Your task to perform on an android device: Open Google Chrome and open the bookmarks view Image 0: 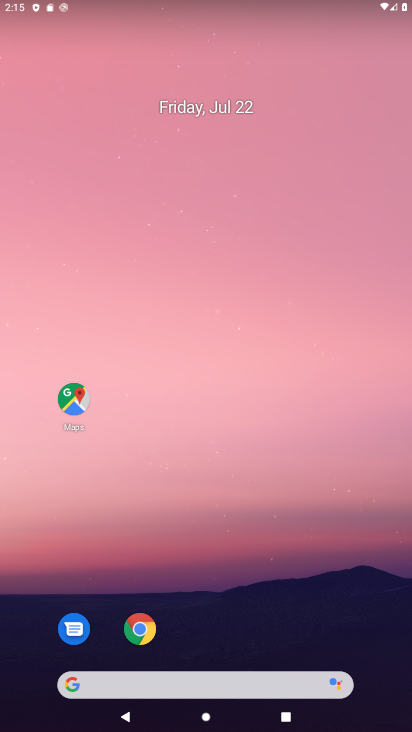
Step 0: click (137, 635)
Your task to perform on an android device: Open Google Chrome and open the bookmarks view Image 1: 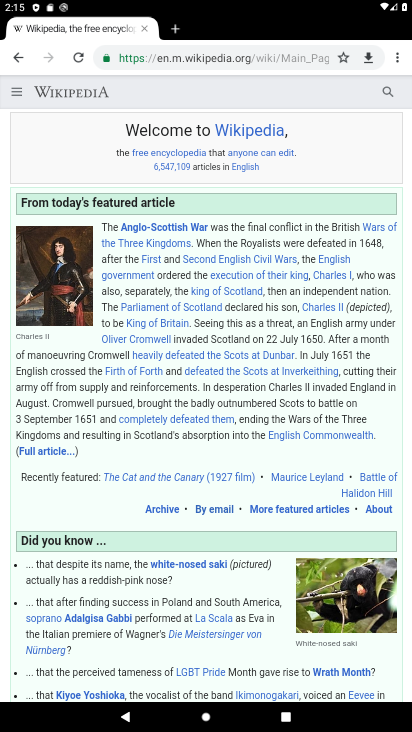
Step 1: click (399, 62)
Your task to perform on an android device: Open Google Chrome and open the bookmarks view Image 2: 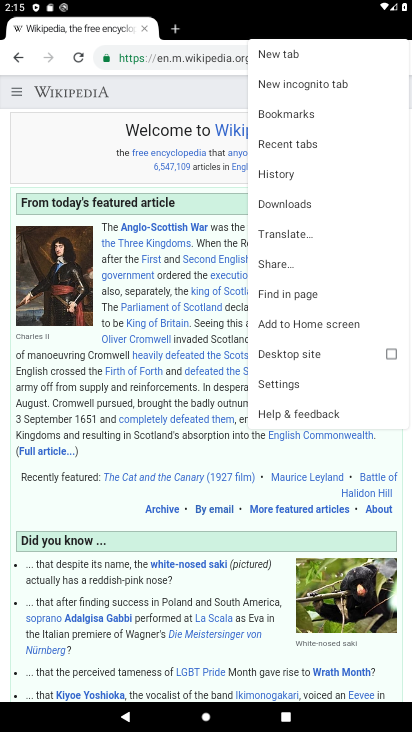
Step 2: click (301, 110)
Your task to perform on an android device: Open Google Chrome and open the bookmarks view Image 3: 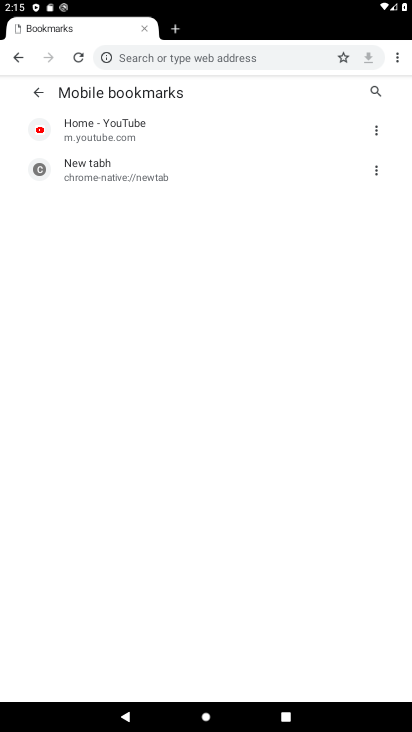
Step 3: task complete